Your task to perform on an android device: Go to accessibility settings Image 0: 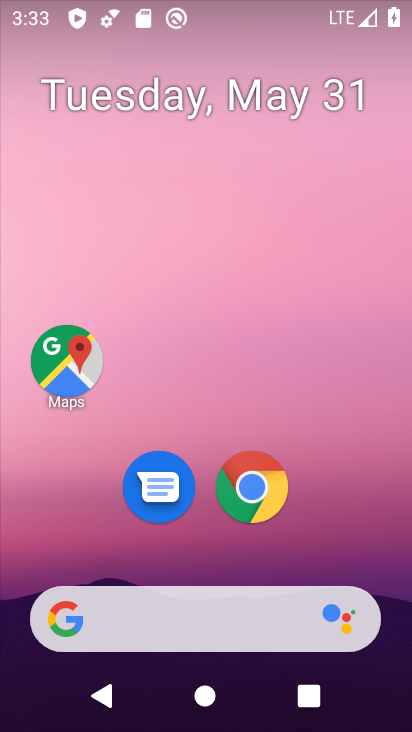
Step 0: click (390, 551)
Your task to perform on an android device: Go to accessibility settings Image 1: 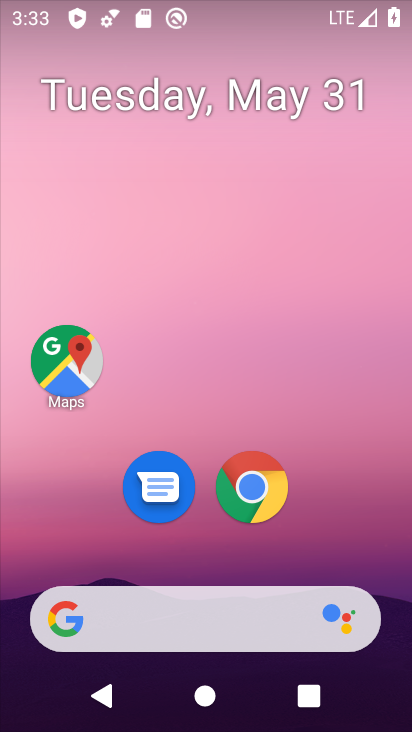
Step 1: drag from (390, 551) to (285, 0)
Your task to perform on an android device: Go to accessibility settings Image 2: 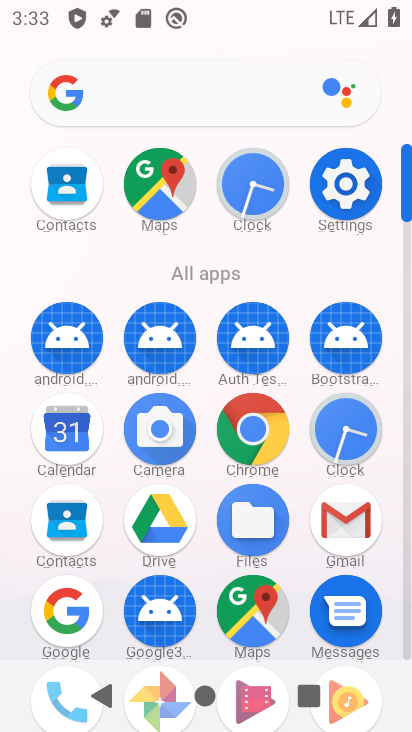
Step 2: click (360, 197)
Your task to perform on an android device: Go to accessibility settings Image 3: 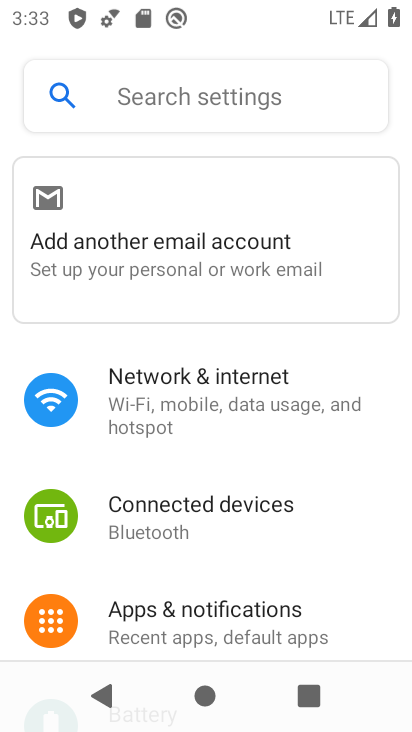
Step 3: drag from (352, 583) to (310, 157)
Your task to perform on an android device: Go to accessibility settings Image 4: 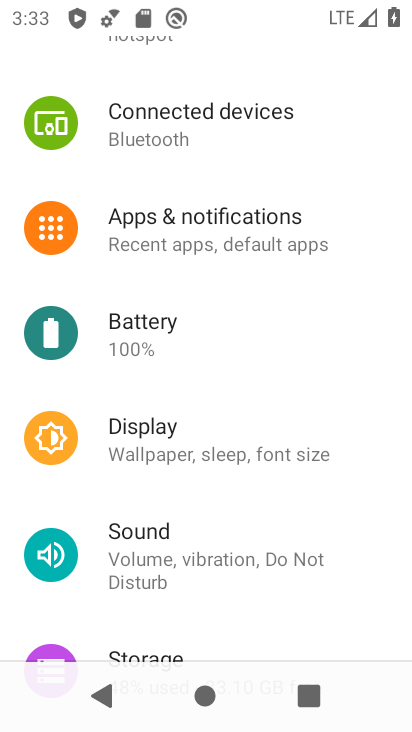
Step 4: drag from (305, 589) to (242, 4)
Your task to perform on an android device: Go to accessibility settings Image 5: 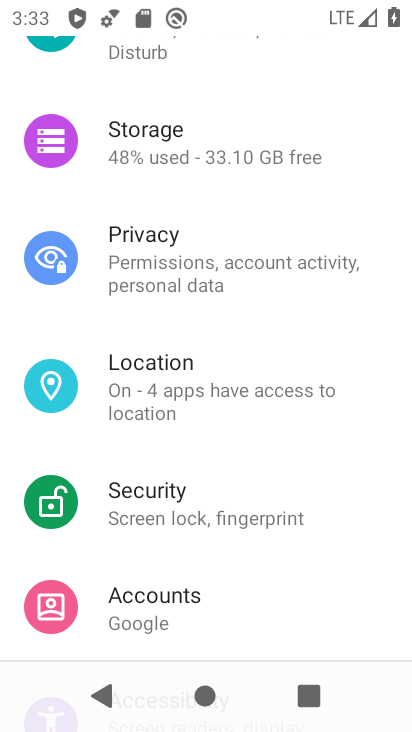
Step 5: drag from (234, 598) to (199, 177)
Your task to perform on an android device: Go to accessibility settings Image 6: 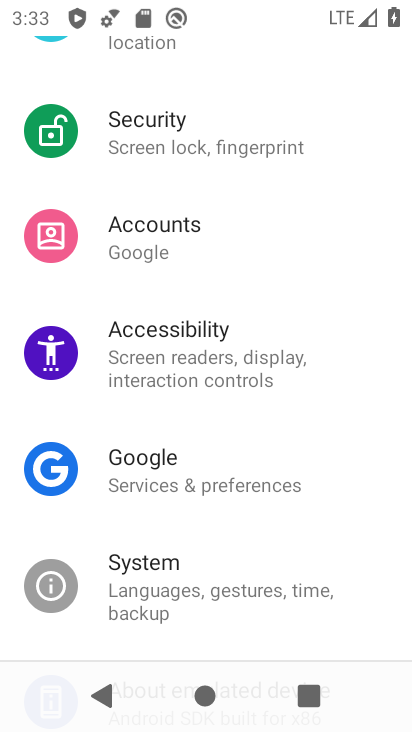
Step 6: click (222, 326)
Your task to perform on an android device: Go to accessibility settings Image 7: 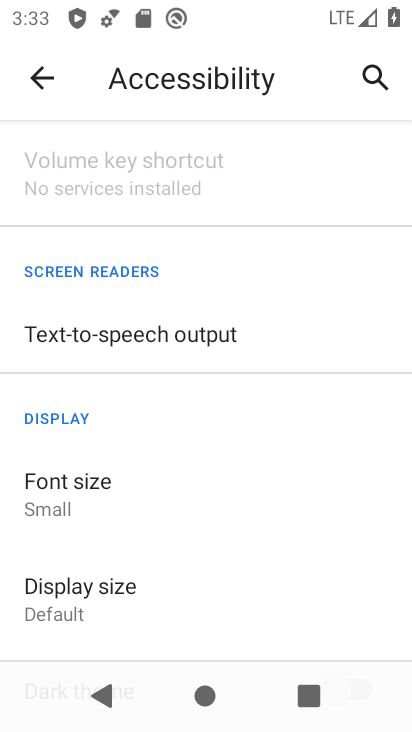
Step 7: task complete